Your task to perform on an android device: Open internet settings Image 0: 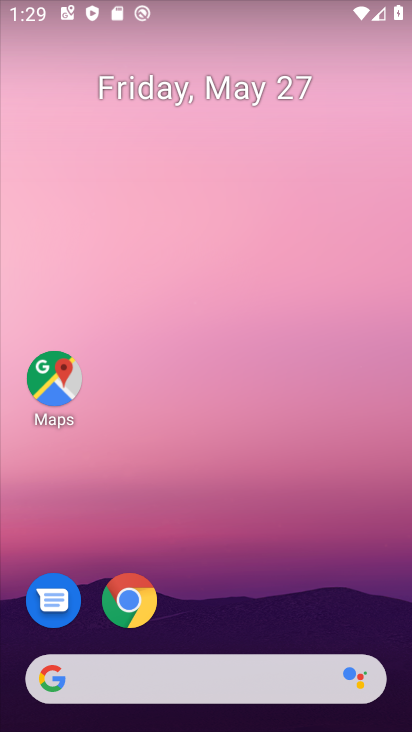
Step 0: drag from (217, 703) to (217, 41)
Your task to perform on an android device: Open internet settings Image 1: 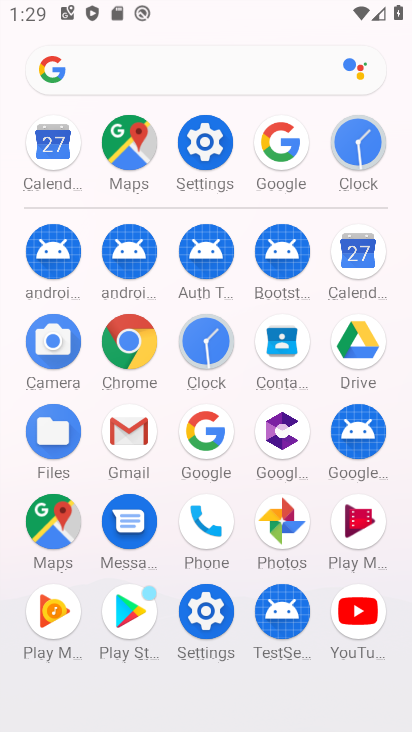
Step 1: click (204, 147)
Your task to perform on an android device: Open internet settings Image 2: 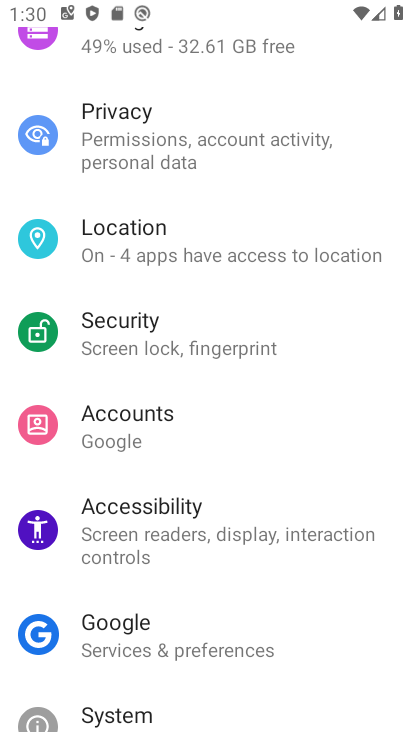
Step 2: drag from (210, 278) to (200, 590)
Your task to perform on an android device: Open internet settings Image 3: 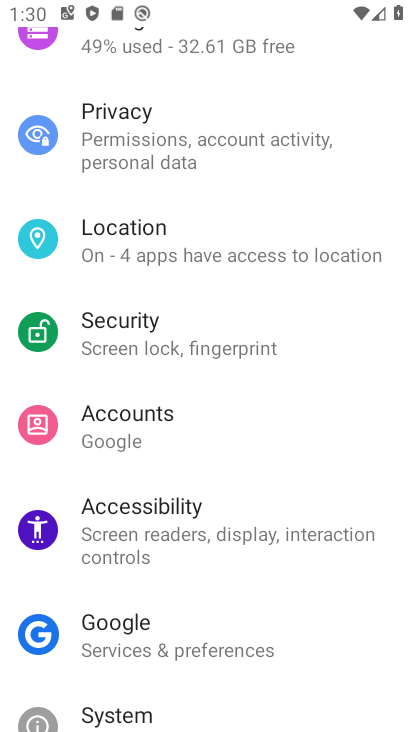
Step 3: drag from (185, 111) to (185, 625)
Your task to perform on an android device: Open internet settings Image 4: 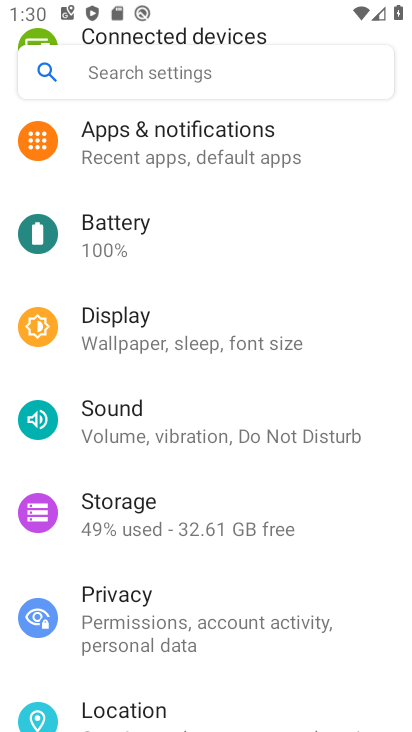
Step 4: drag from (213, 218) to (212, 523)
Your task to perform on an android device: Open internet settings Image 5: 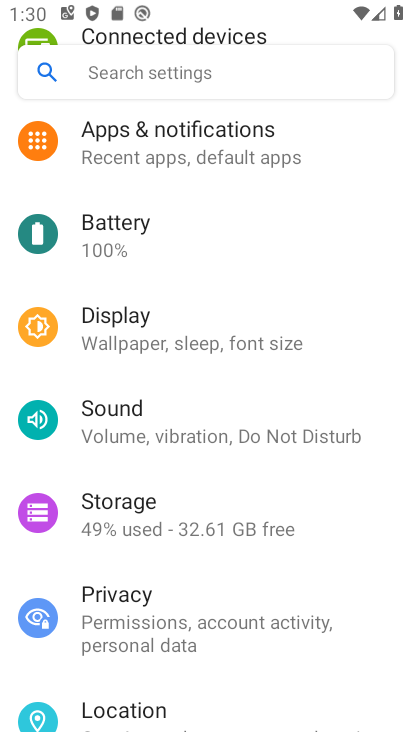
Step 5: drag from (195, 123) to (185, 506)
Your task to perform on an android device: Open internet settings Image 6: 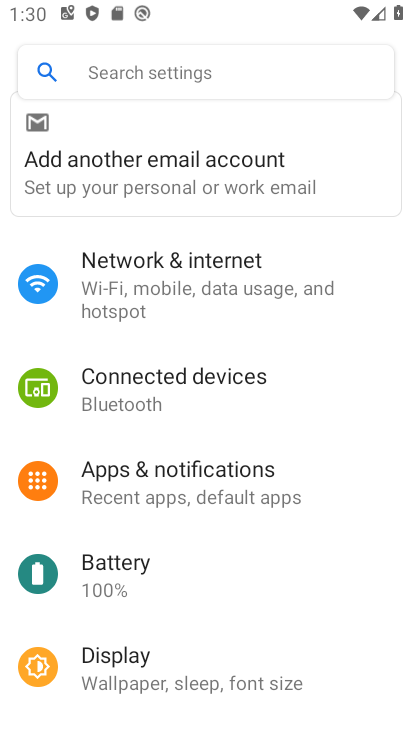
Step 6: click (144, 277)
Your task to perform on an android device: Open internet settings Image 7: 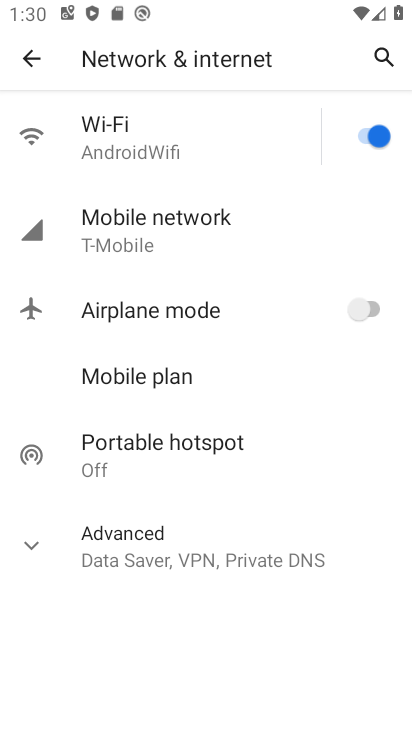
Step 7: task complete